Your task to perform on an android device: Open the phone app and click the voicemail tab. Image 0: 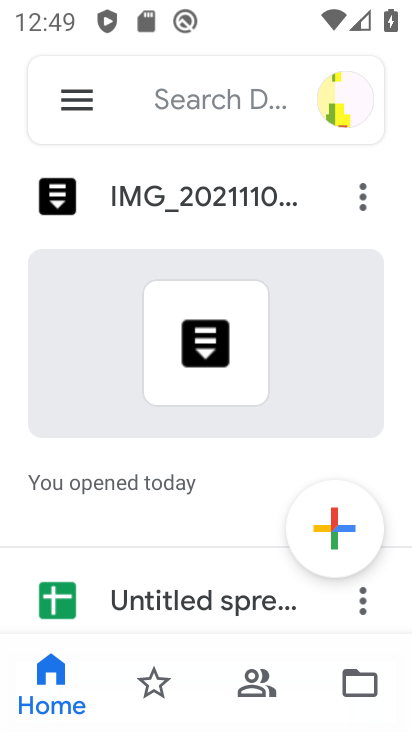
Step 0: press home button
Your task to perform on an android device: Open the phone app and click the voicemail tab. Image 1: 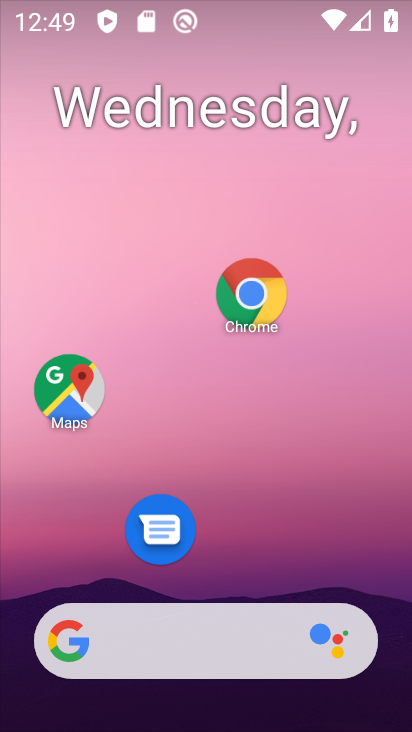
Step 1: drag from (209, 678) to (204, 254)
Your task to perform on an android device: Open the phone app and click the voicemail tab. Image 2: 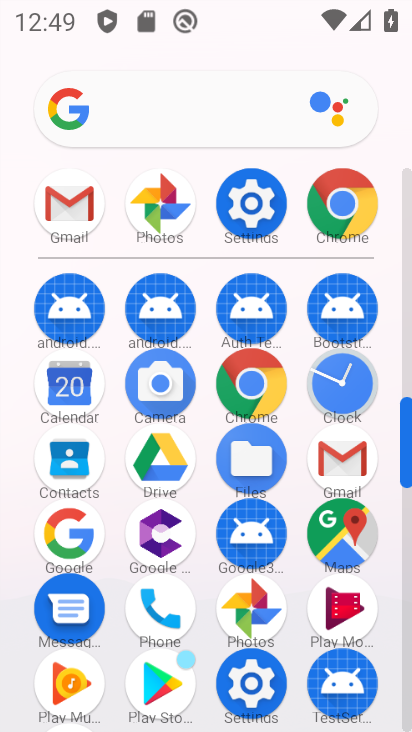
Step 2: drag from (248, 581) to (288, 232)
Your task to perform on an android device: Open the phone app and click the voicemail tab. Image 3: 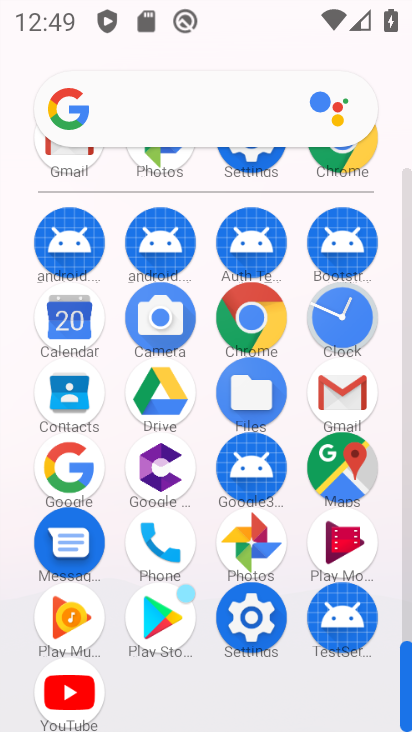
Step 3: click (184, 553)
Your task to perform on an android device: Open the phone app and click the voicemail tab. Image 4: 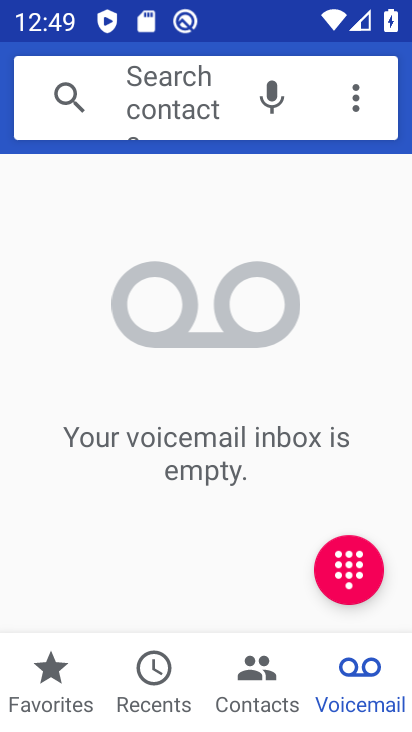
Step 4: task complete